Your task to perform on an android device: turn off location Image 0: 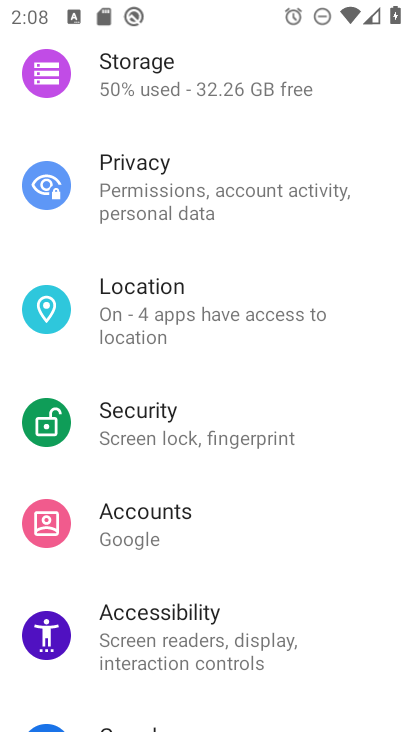
Step 0: press home button
Your task to perform on an android device: turn off location Image 1: 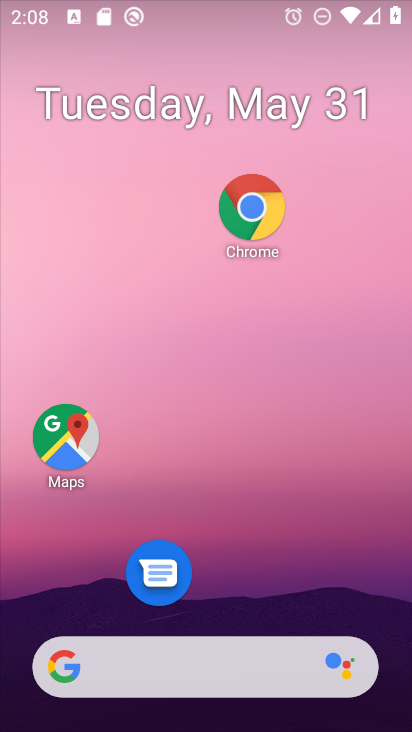
Step 1: drag from (171, 605) to (166, 121)
Your task to perform on an android device: turn off location Image 2: 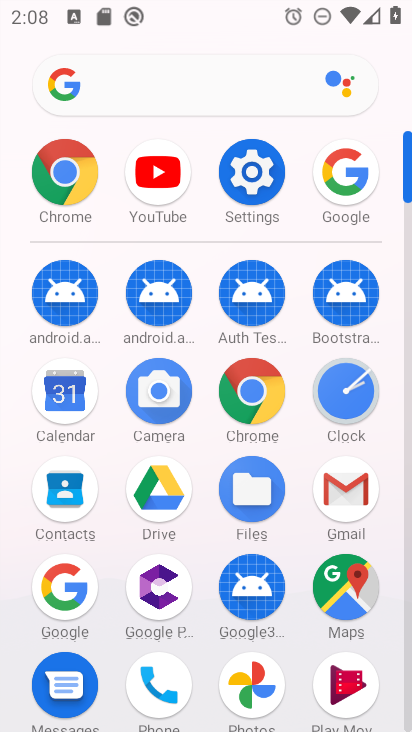
Step 2: click (264, 192)
Your task to perform on an android device: turn off location Image 3: 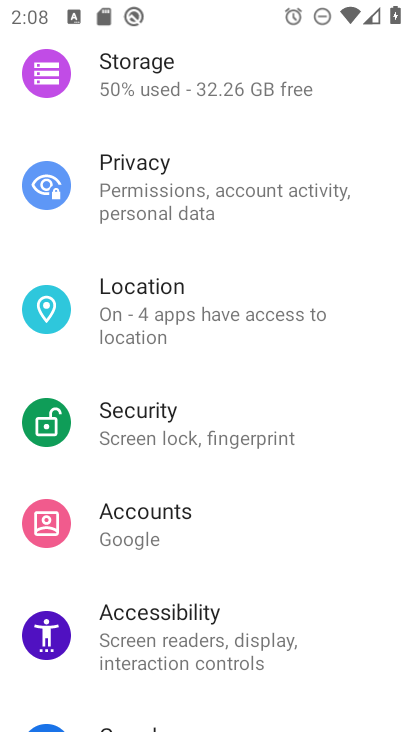
Step 3: drag from (204, 541) to (235, 252)
Your task to perform on an android device: turn off location Image 4: 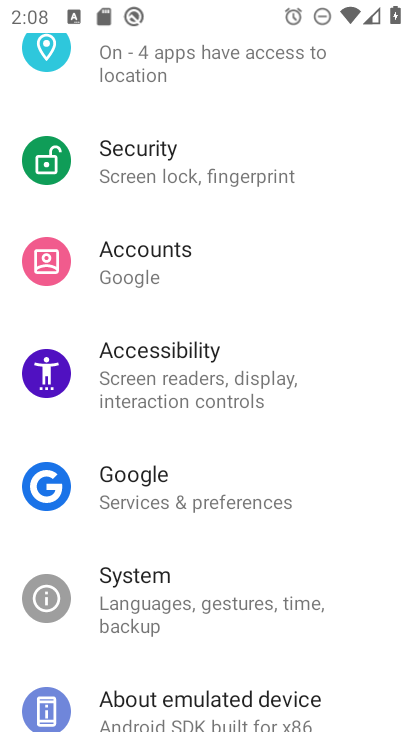
Step 4: drag from (205, 532) to (215, 197)
Your task to perform on an android device: turn off location Image 5: 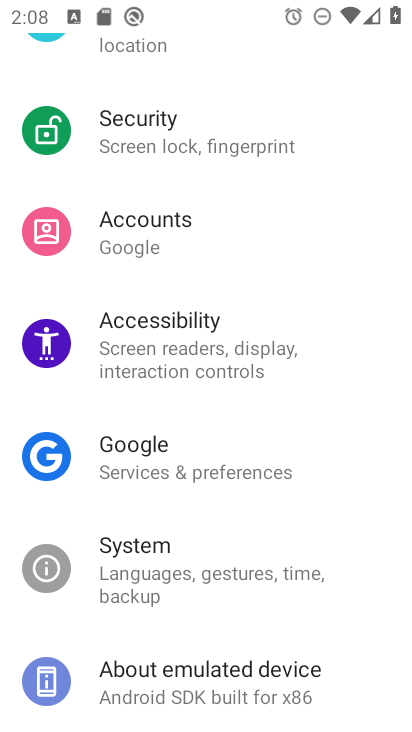
Step 5: drag from (222, 296) to (229, 600)
Your task to perform on an android device: turn off location Image 6: 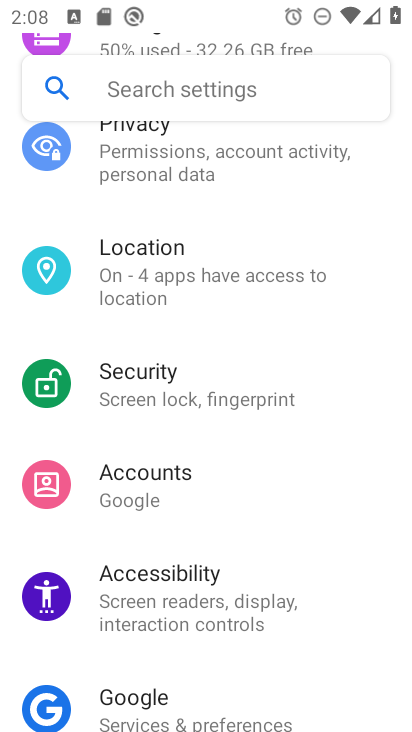
Step 6: drag from (213, 405) to (215, 639)
Your task to perform on an android device: turn off location Image 7: 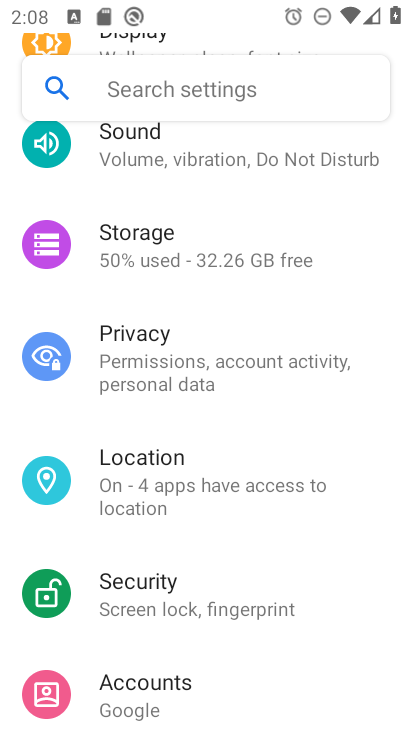
Step 7: click (201, 470)
Your task to perform on an android device: turn off location Image 8: 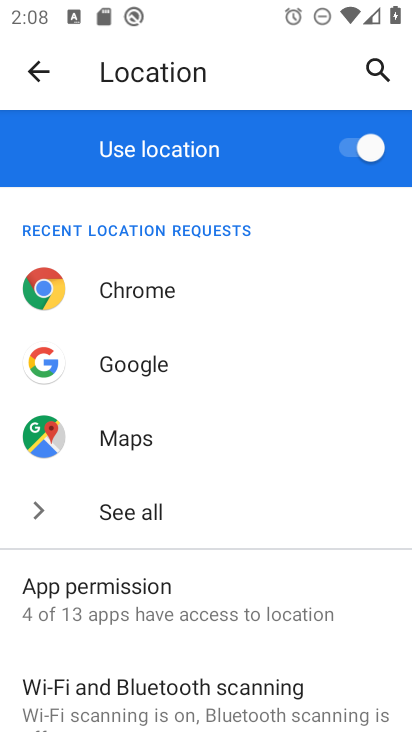
Step 8: click (347, 166)
Your task to perform on an android device: turn off location Image 9: 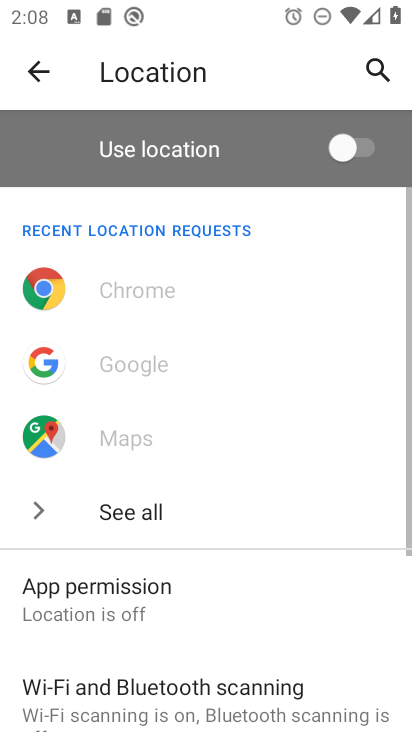
Step 9: task complete